Your task to perform on an android device: turn off translation in the chrome app Image 0: 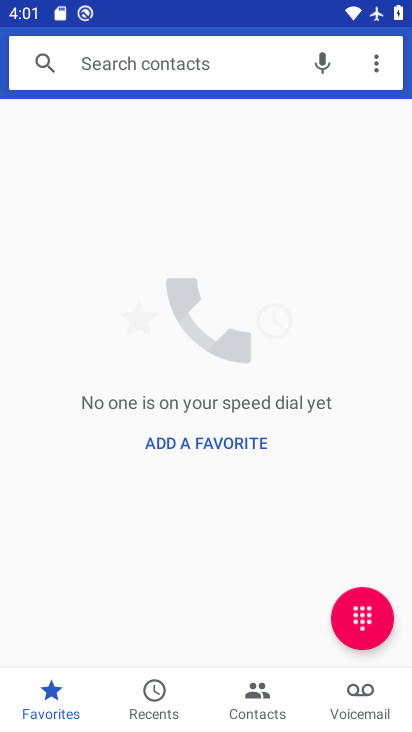
Step 0: press home button
Your task to perform on an android device: turn off translation in the chrome app Image 1: 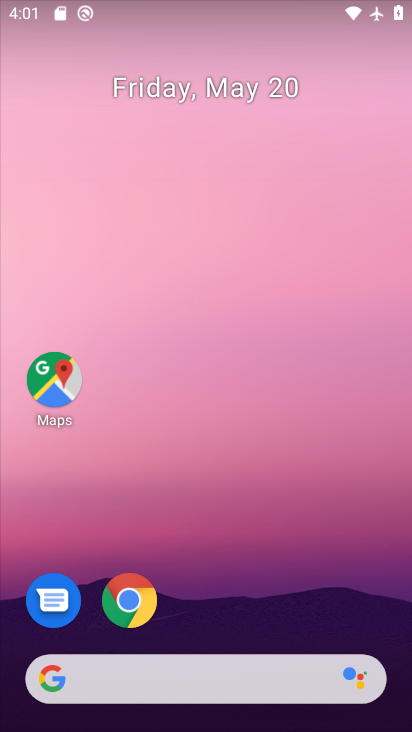
Step 1: click (140, 599)
Your task to perform on an android device: turn off translation in the chrome app Image 2: 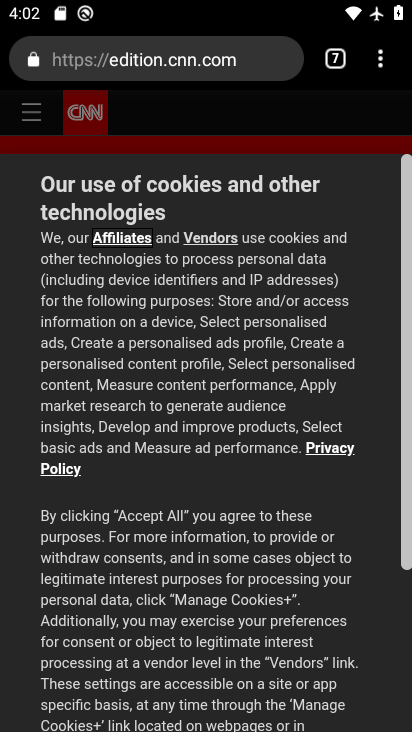
Step 2: click (382, 61)
Your task to perform on an android device: turn off translation in the chrome app Image 3: 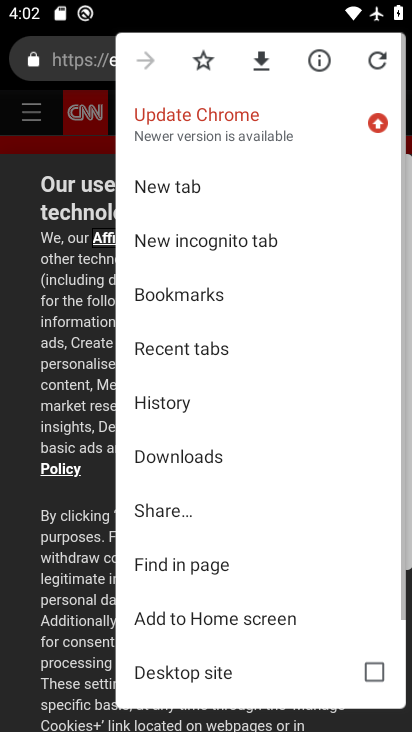
Step 3: drag from (269, 576) to (268, 207)
Your task to perform on an android device: turn off translation in the chrome app Image 4: 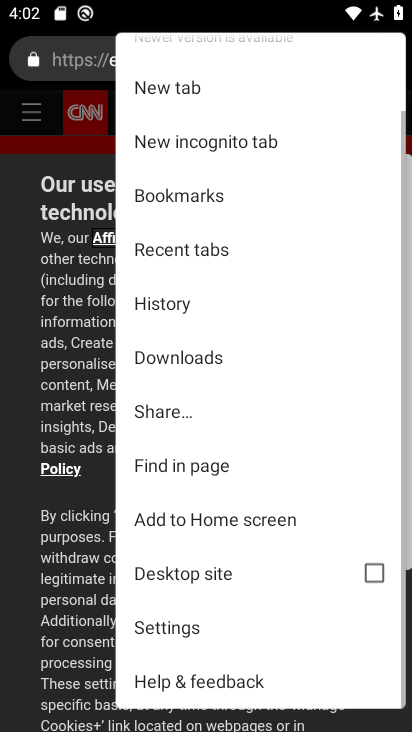
Step 4: click (228, 614)
Your task to perform on an android device: turn off translation in the chrome app Image 5: 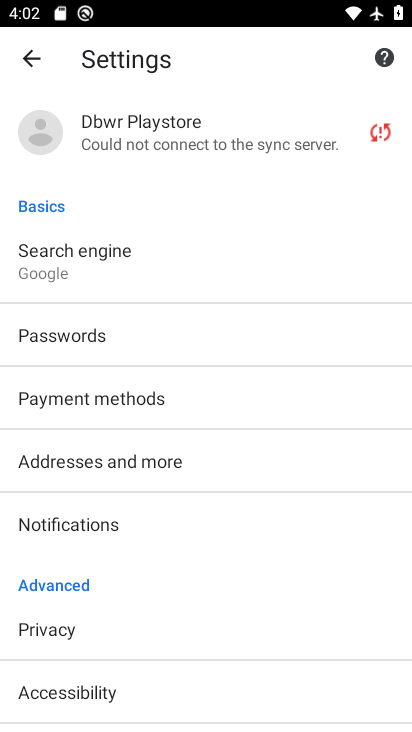
Step 5: drag from (221, 609) to (171, 143)
Your task to perform on an android device: turn off translation in the chrome app Image 6: 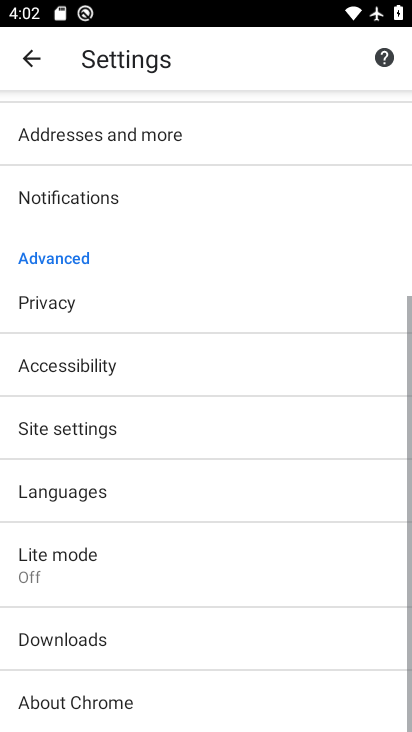
Step 6: click (168, 488)
Your task to perform on an android device: turn off translation in the chrome app Image 7: 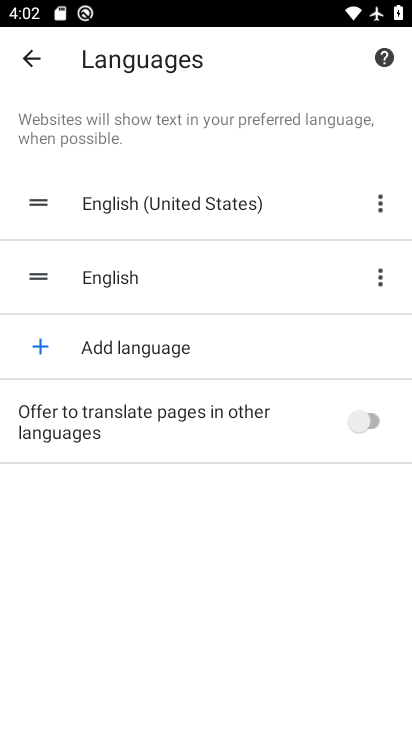
Step 7: click (366, 419)
Your task to perform on an android device: turn off translation in the chrome app Image 8: 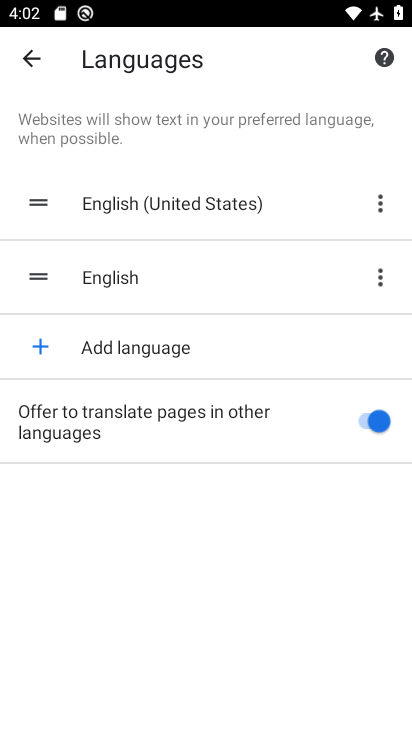
Step 8: task complete